Your task to perform on an android device: see sites visited before in the chrome app Image 0: 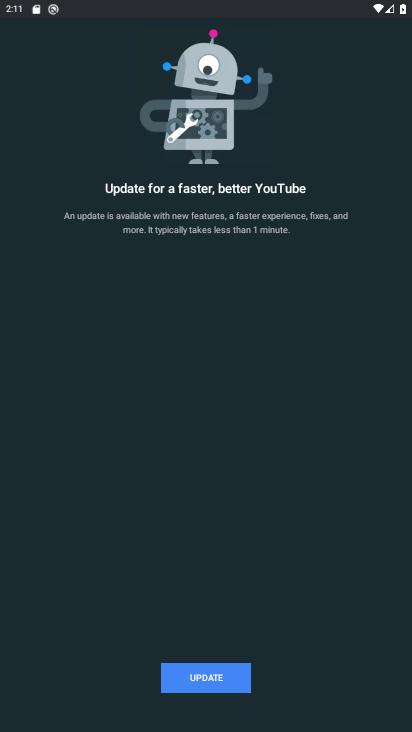
Step 0: press home button
Your task to perform on an android device: see sites visited before in the chrome app Image 1: 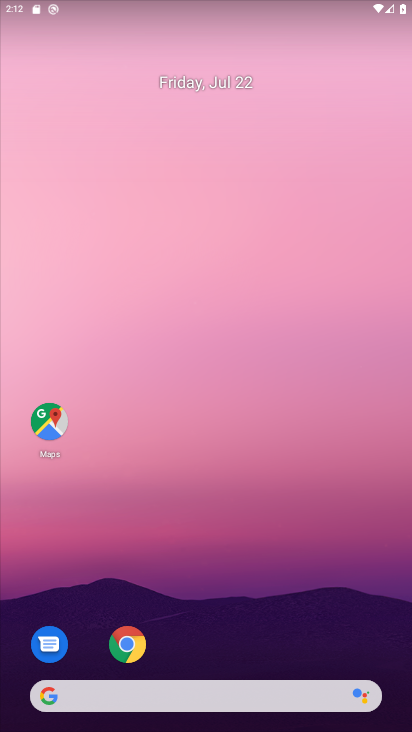
Step 1: click (126, 641)
Your task to perform on an android device: see sites visited before in the chrome app Image 2: 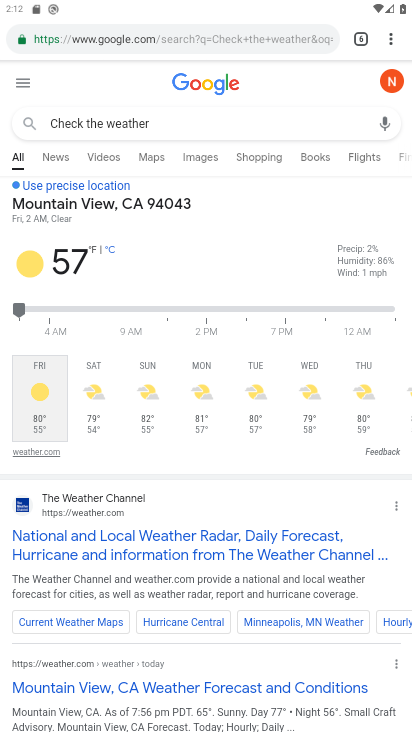
Step 2: click (392, 31)
Your task to perform on an android device: see sites visited before in the chrome app Image 3: 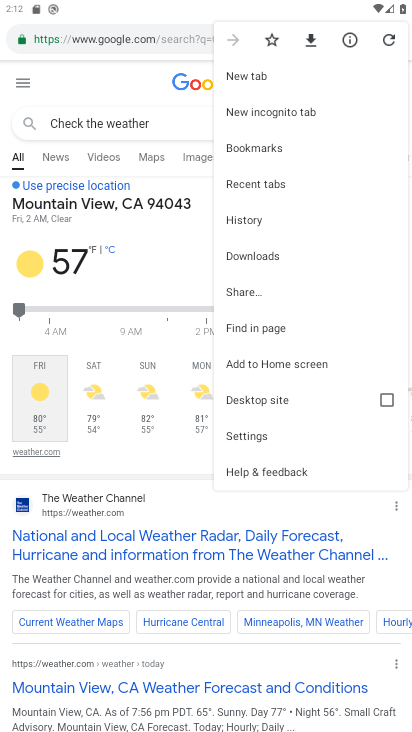
Step 3: click (281, 154)
Your task to perform on an android device: see sites visited before in the chrome app Image 4: 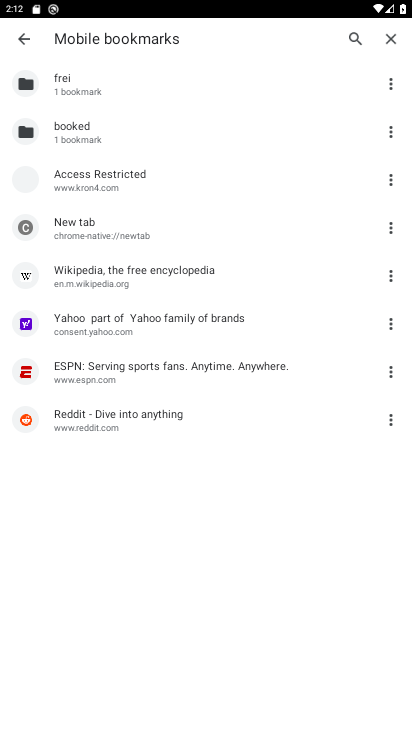
Step 4: click (35, 30)
Your task to perform on an android device: see sites visited before in the chrome app Image 5: 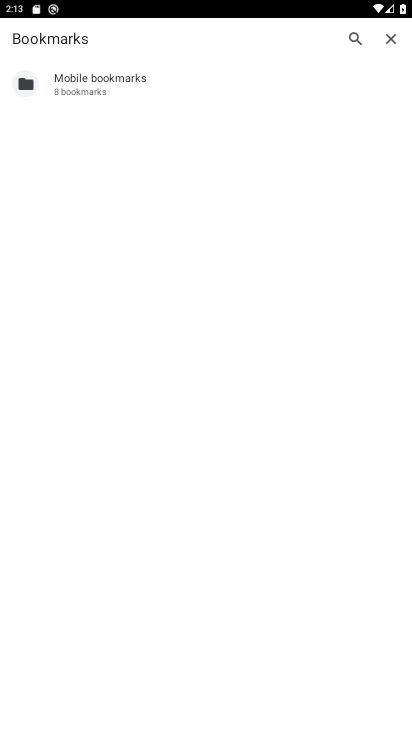
Step 5: click (397, 43)
Your task to perform on an android device: see sites visited before in the chrome app Image 6: 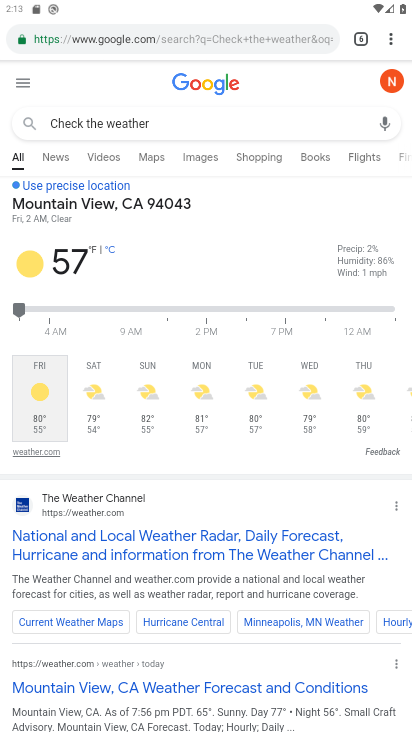
Step 6: click (402, 38)
Your task to perform on an android device: see sites visited before in the chrome app Image 7: 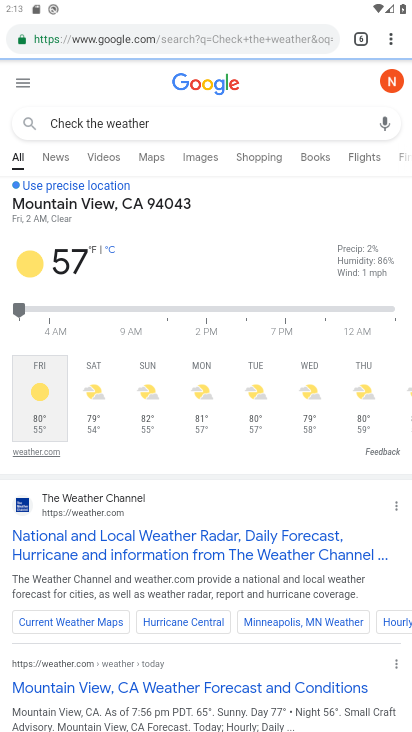
Step 7: click (392, 34)
Your task to perform on an android device: see sites visited before in the chrome app Image 8: 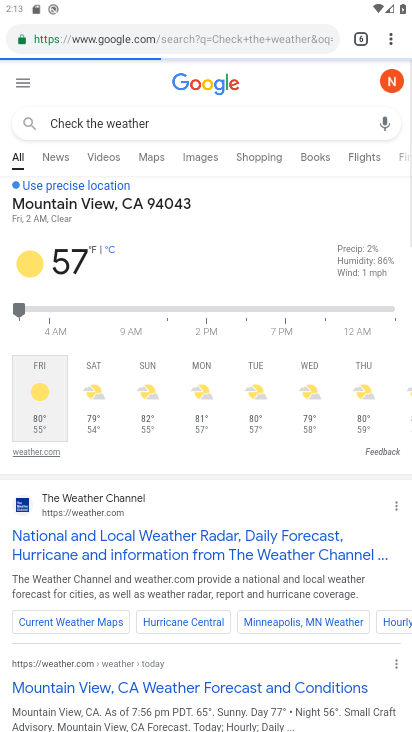
Step 8: click (392, 34)
Your task to perform on an android device: see sites visited before in the chrome app Image 9: 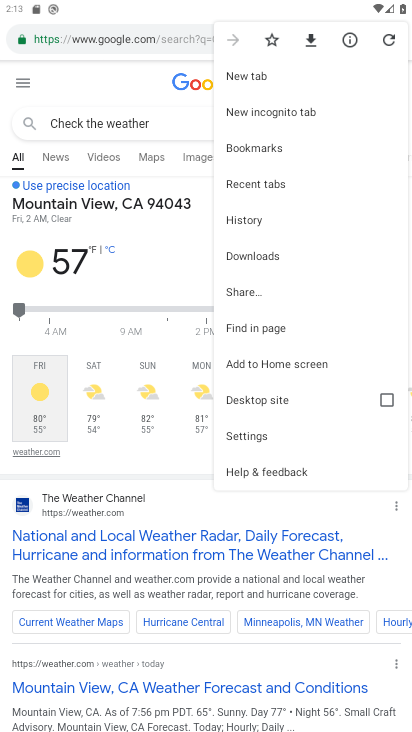
Step 9: click (254, 208)
Your task to perform on an android device: see sites visited before in the chrome app Image 10: 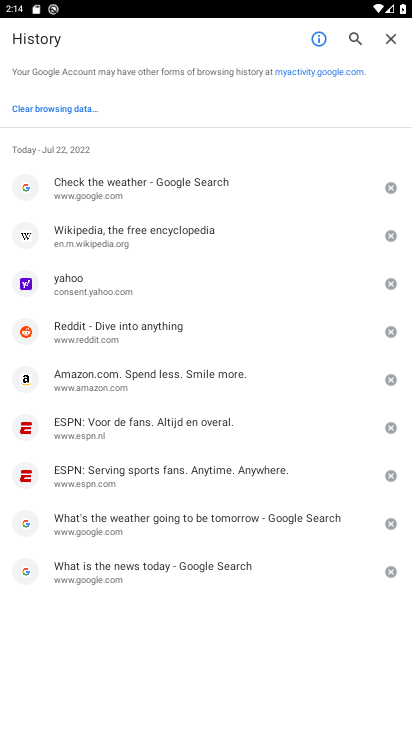
Step 10: task complete